Your task to perform on an android device: toggle location history Image 0: 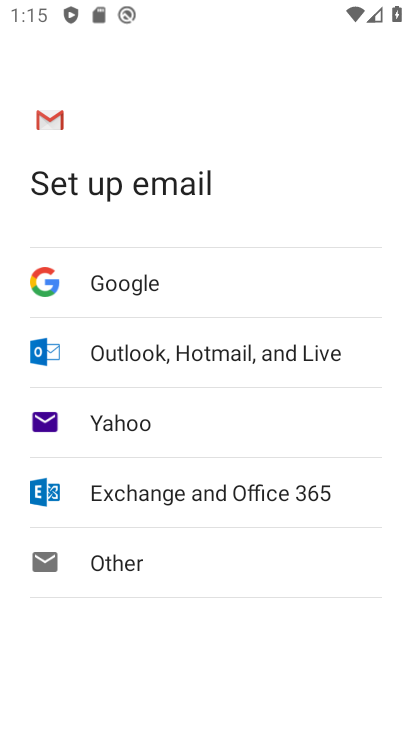
Step 0: drag from (206, 617) to (286, 157)
Your task to perform on an android device: toggle location history Image 1: 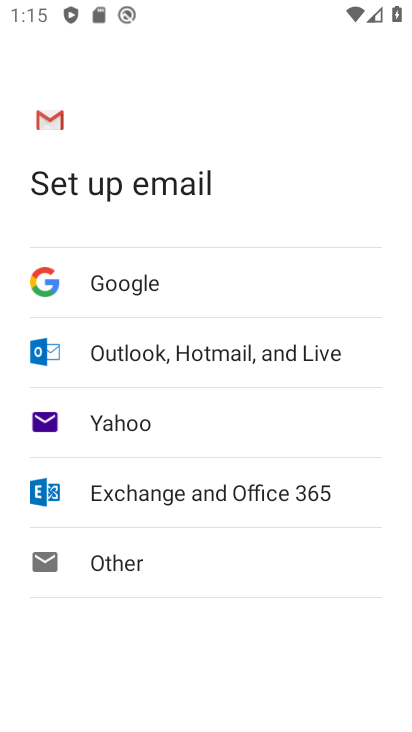
Step 1: press home button
Your task to perform on an android device: toggle location history Image 2: 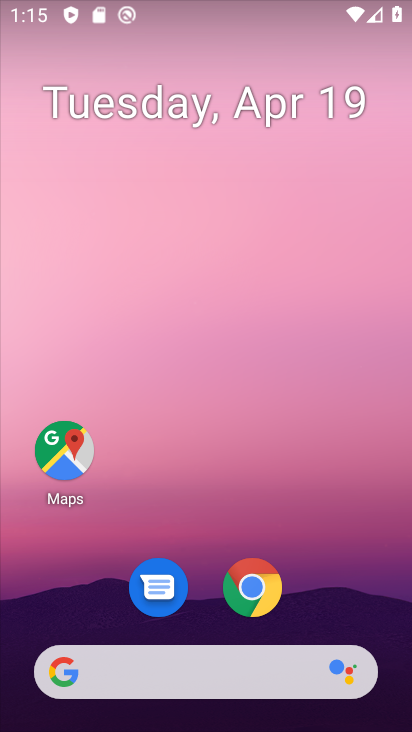
Step 2: drag from (210, 626) to (234, 48)
Your task to perform on an android device: toggle location history Image 3: 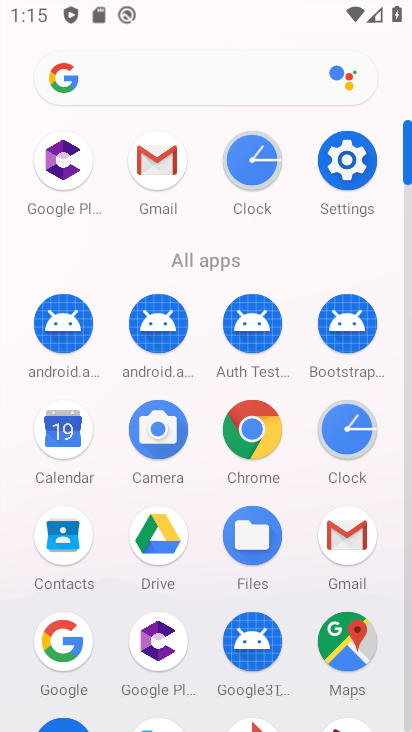
Step 3: click (344, 152)
Your task to perform on an android device: toggle location history Image 4: 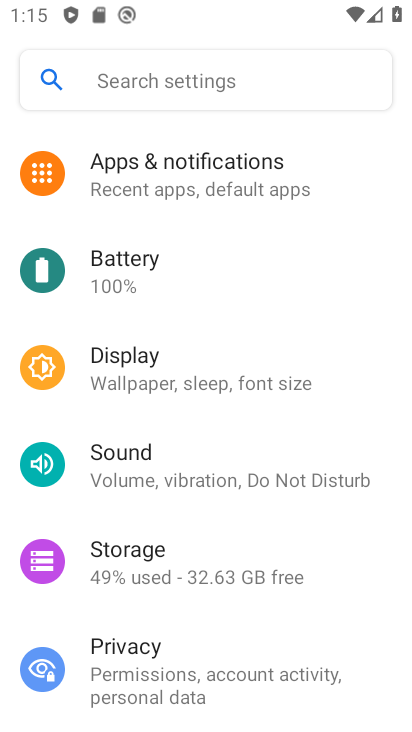
Step 4: drag from (185, 649) to (186, 168)
Your task to perform on an android device: toggle location history Image 5: 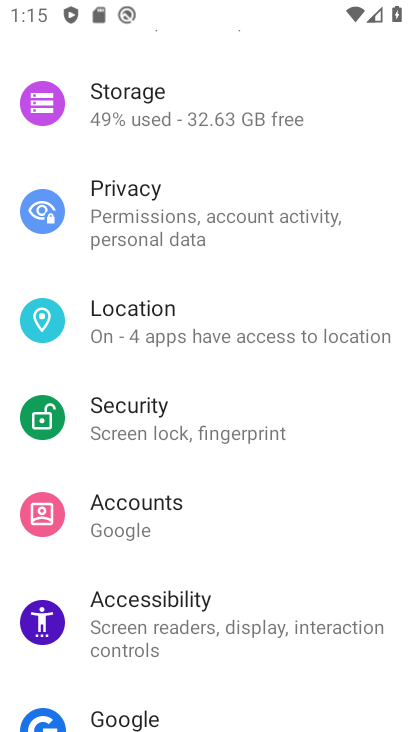
Step 5: click (185, 300)
Your task to perform on an android device: toggle location history Image 6: 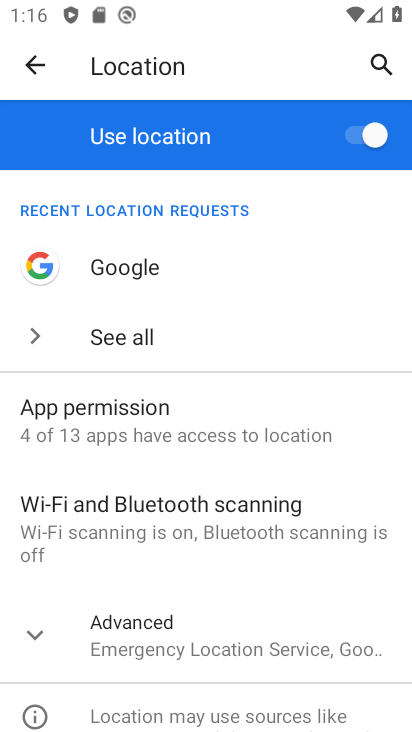
Step 6: click (34, 630)
Your task to perform on an android device: toggle location history Image 7: 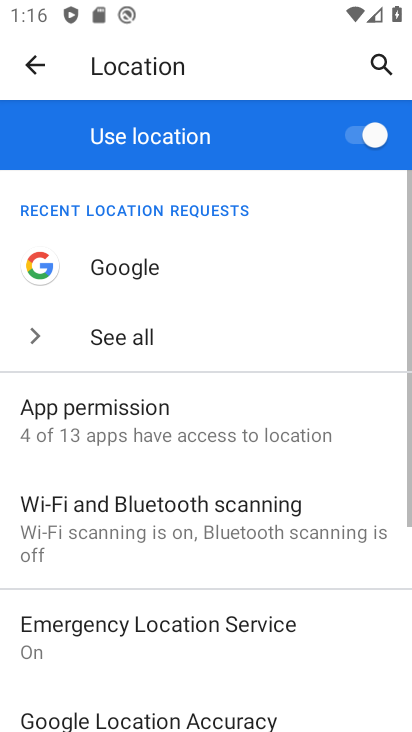
Step 7: drag from (162, 654) to (151, 156)
Your task to perform on an android device: toggle location history Image 8: 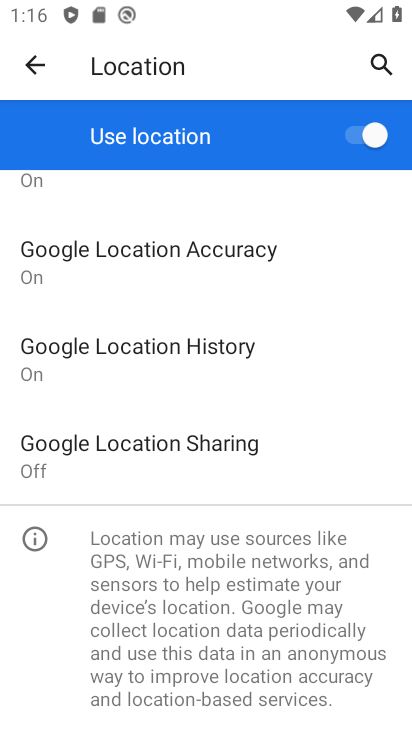
Step 8: click (90, 356)
Your task to perform on an android device: toggle location history Image 9: 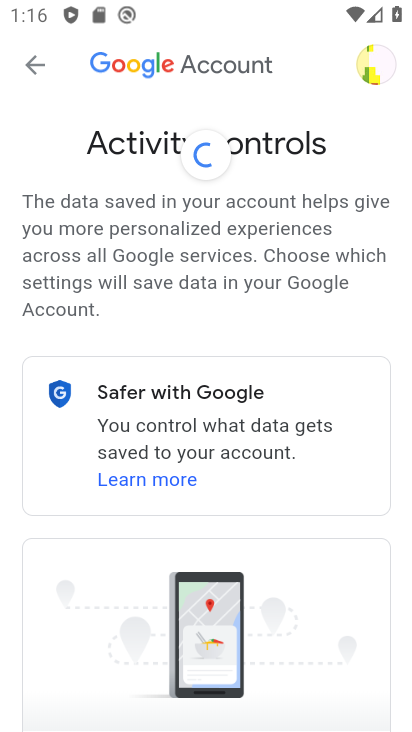
Step 9: drag from (141, 587) to (161, 155)
Your task to perform on an android device: toggle location history Image 10: 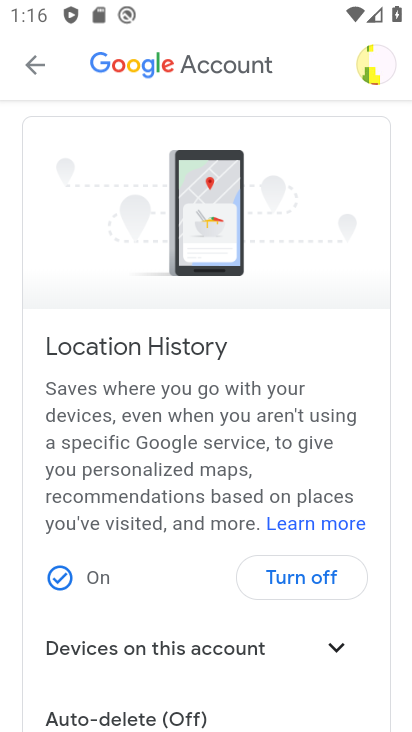
Step 10: click (321, 574)
Your task to perform on an android device: toggle location history Image 11: 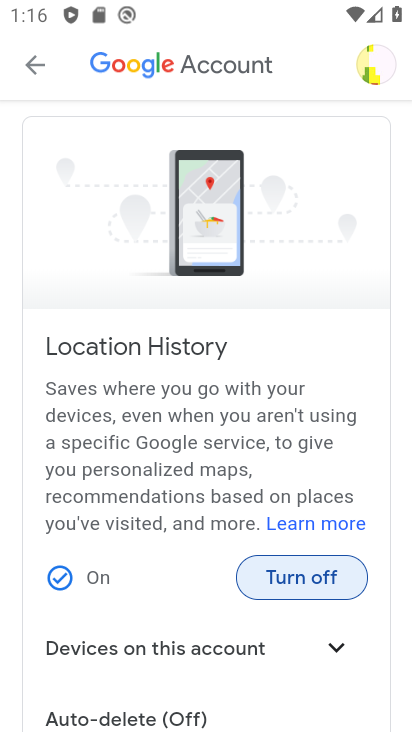
Step 11: click (305, 572)
Your task to perform on an android device: toggle location history Image 12: 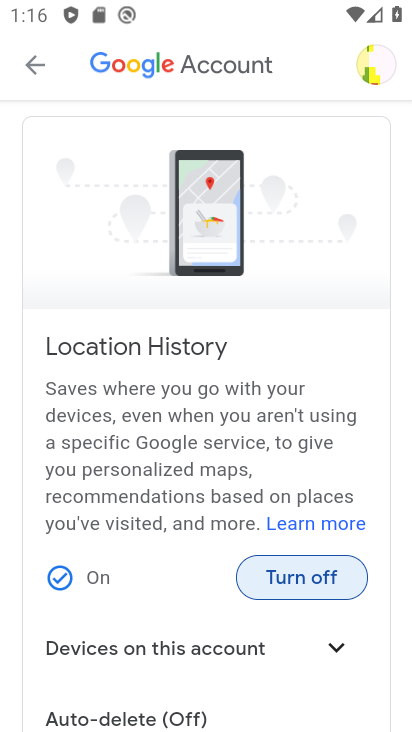
Step 12: click (304, 572)
Your task to perform on an android device: toggle location history Image 13: 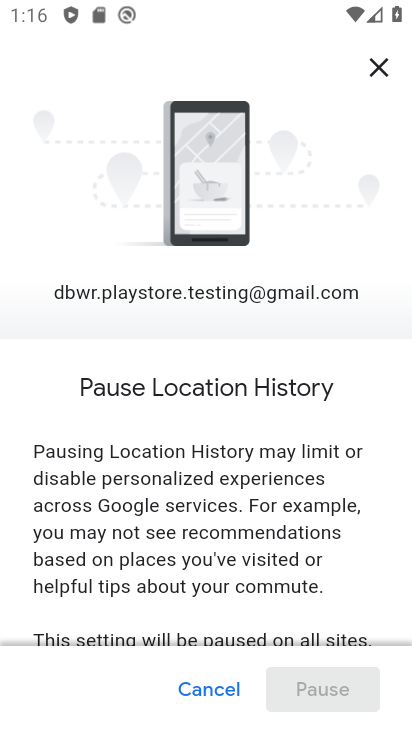
Step 13: drag from (271, 614) to (259, 0)
Your task to perform on an android device: toggle location history Image 14: 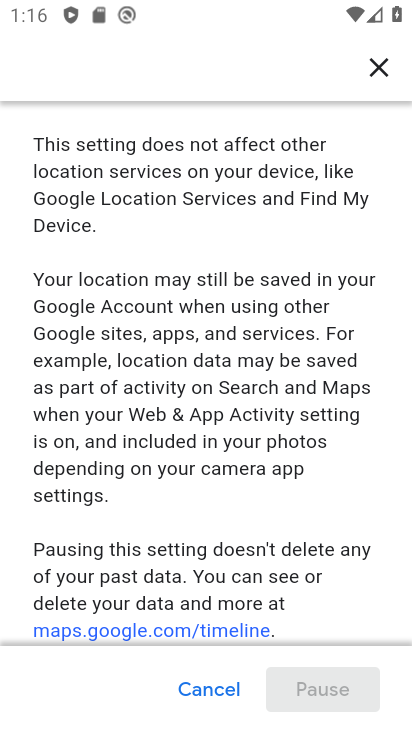
Step 14: drag from (229, 554) to (227, 27)
Your task to perform on an android device: toggle location history Image 15: 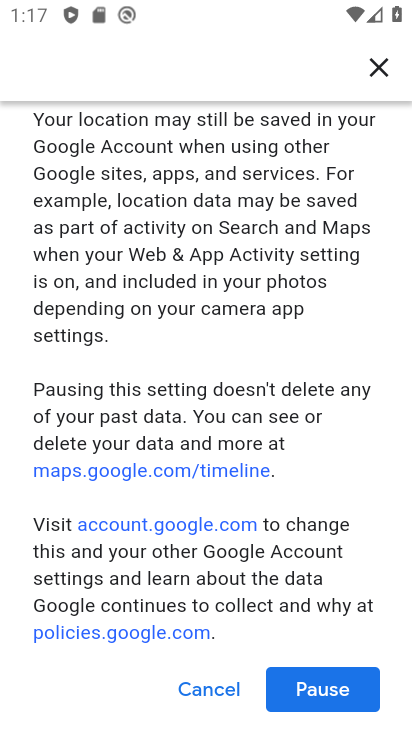
Step 15: click (323, 681)
Your task to perform on an android device: toggle location history Image 16: 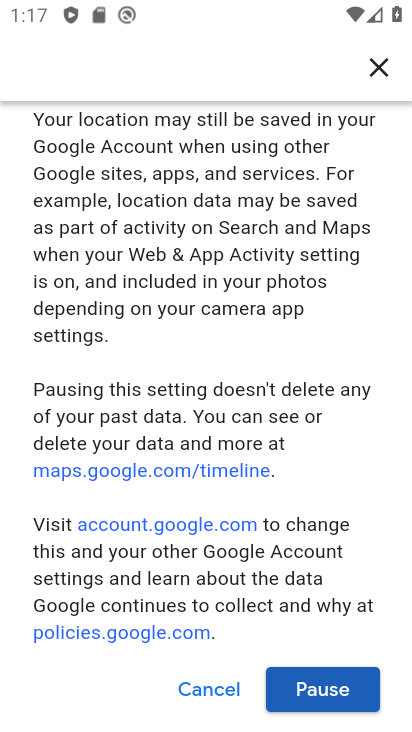
Step 16: click (321, 680)
Your task to perform on an android device: toggle location history Image 17: 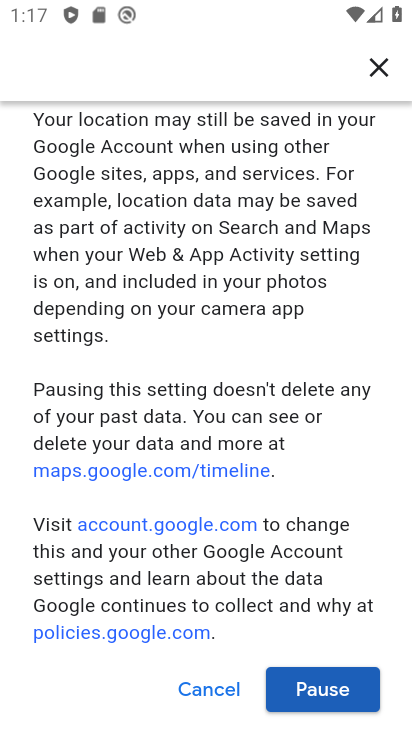
Step 17: click (334, 681)
Your task to perform on an android device: toggle location history Image 18: 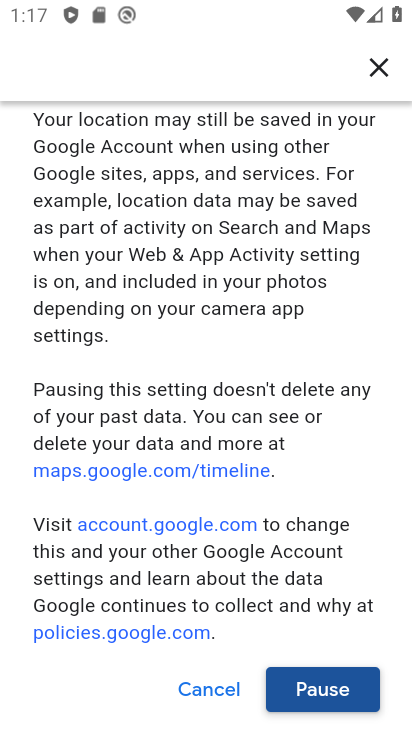
Step 18: drag from (296, 498) to (311, 201)
Your task to perform on an android device: toggle location history Image 19: 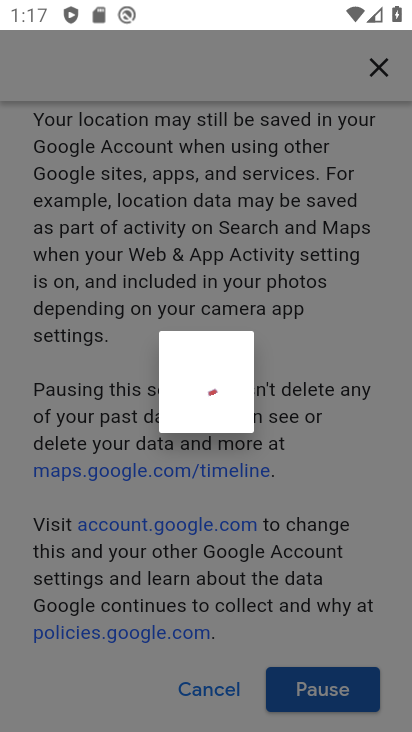
Step 19: click (328, 689)
Your task to perform on an android device: toggle location history Image 20: 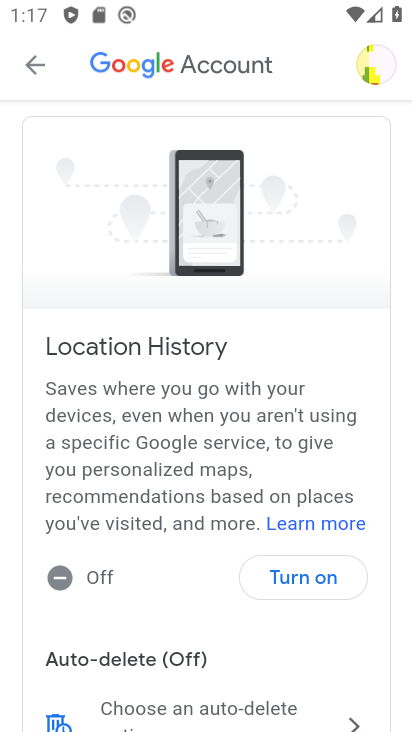
Step 20: task complete